Your task to perform on an android device: Open Youtube and go to the subscriptions tab Image 0: 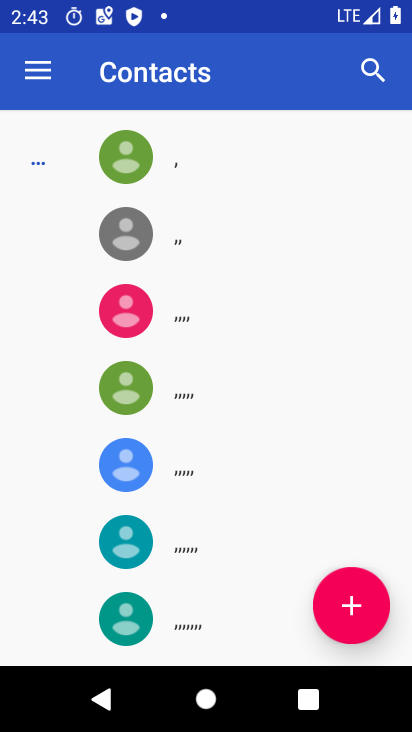
Step 0: press home button
Your task to perform on an android device: Open Youtube and go to the subscriptions tab Image 1: 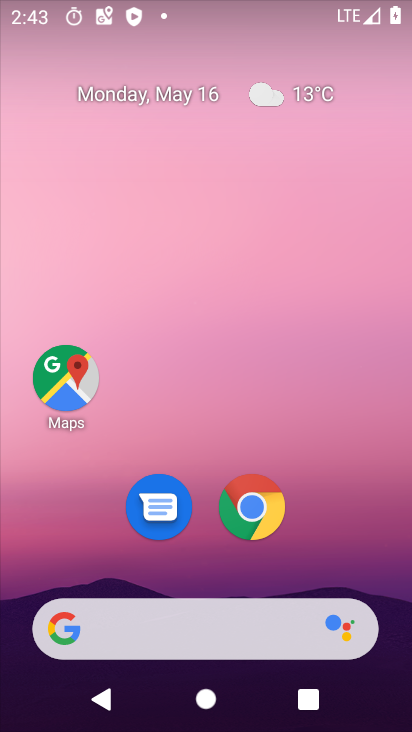
Step 1: drag from (373, 550) to (384, 90)
Your task to perform on an android device: Open Youtube and go to the subscriptions tab Image 2: 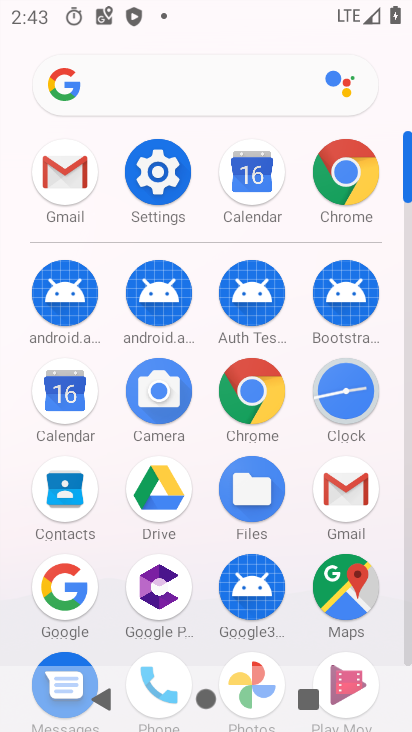
Step 2: drag from (195, 545) to (207, 298)
Your task to perform on an android device: Open Youtube and go to the subscriptions tab Image 3: 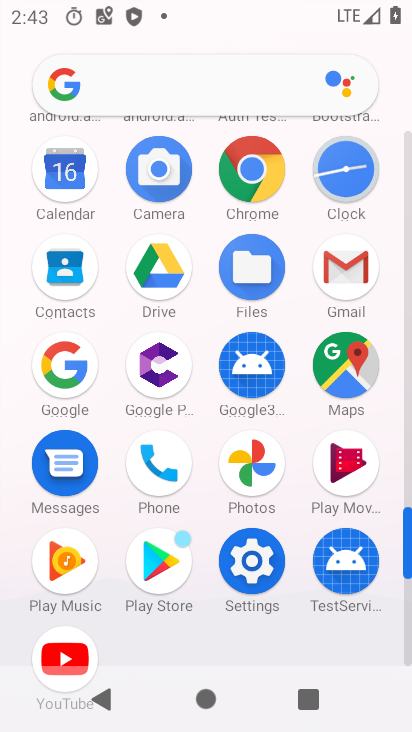
Step 3: drag from (200, 626) to (205, 426)
Your task to perform on an android device: Open Youtube and go to the subscriptions tab Image 4: 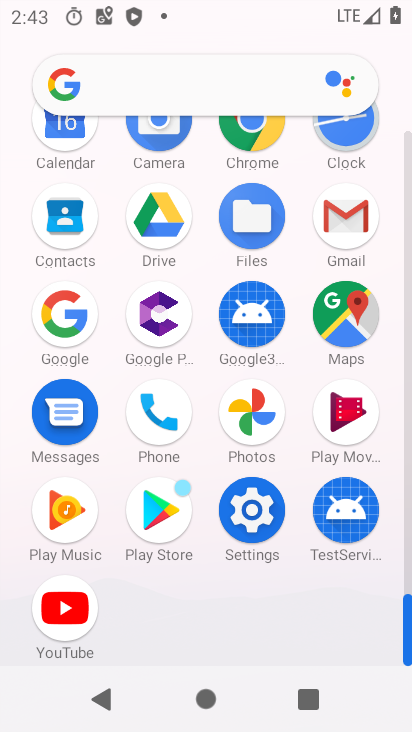
Step 4: click (68, 619)
Your task to perform on an android device: Open Youtube and go to the subscriptions tab Image 5: 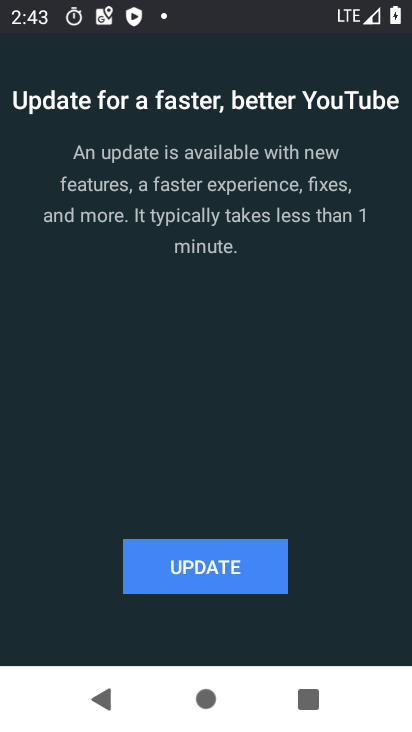
Step 5: click (194, 582)
Your task to perform on an android device: Open Youtube and go to the subscriptions tab Image 6: 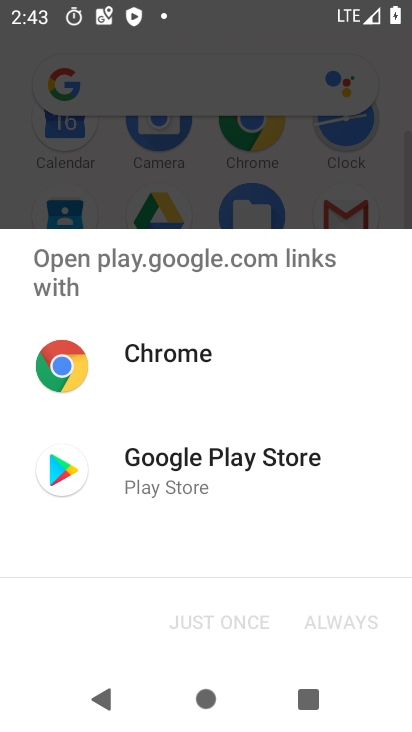
Step 6: click (184, 467)
Your task to perform on an android device: Open Youtube and go to the subscriptions tab Image 7: 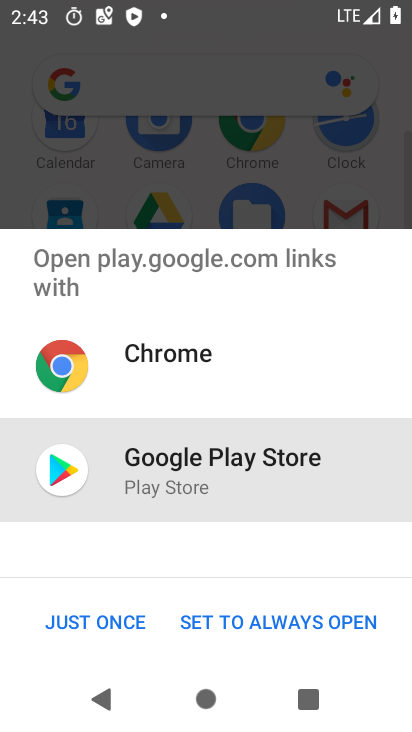
Step 7: click (106, 628)
Your task to perform on an android device: Open Youtube and go to the subscriptions tab Image 8: 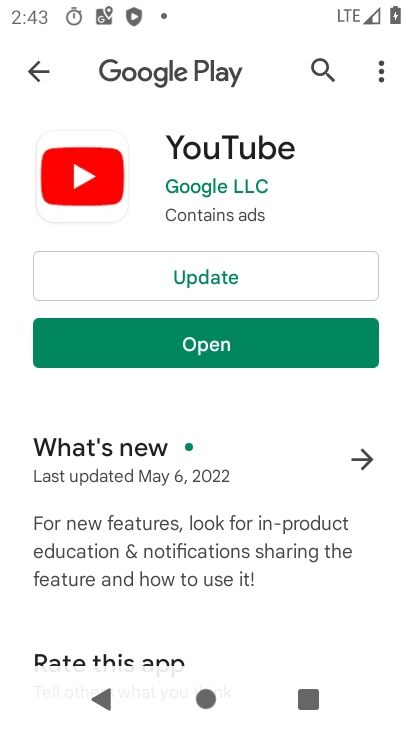
Step 8: click (243, 278)
Your task to perform on an android device: Open Youtube and go to the subscriptions tab Image 9: 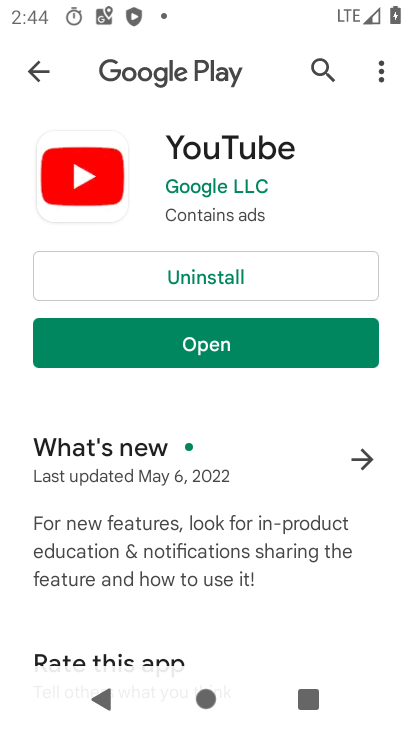
Step 9: click (227, 348)
Your task to perform on an android device: Open Youtube and go to the subscriptions tab Image 10: 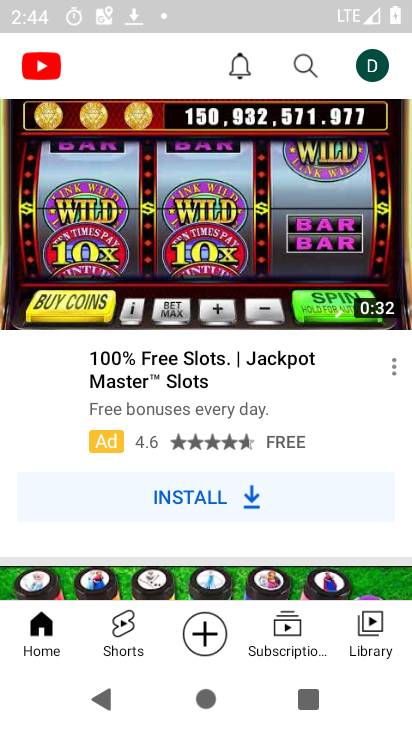
Step 10: click (288, 634)
Your task to perform on an android device: Open Youtube and go to the subscriptions tab Image 11: 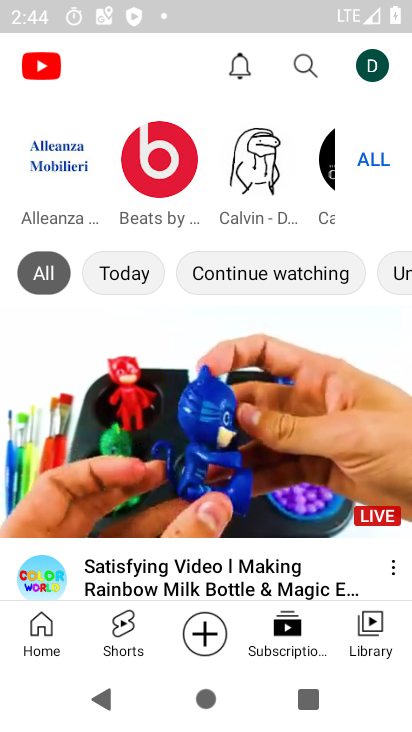
Step 11: task complete